Your task to perform on an android device: turn on the 24-hour format for clock Image 0: 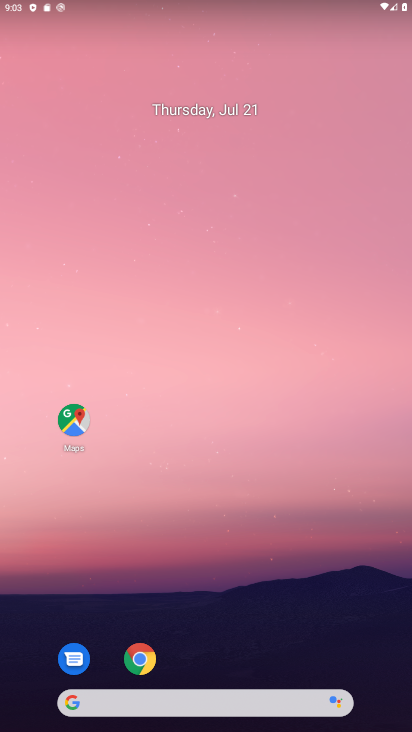
Step 0: drag from (232, 693) to (265, 147)
Your task to perform on an android device: turn on the 24-hour format for clock Image 1: 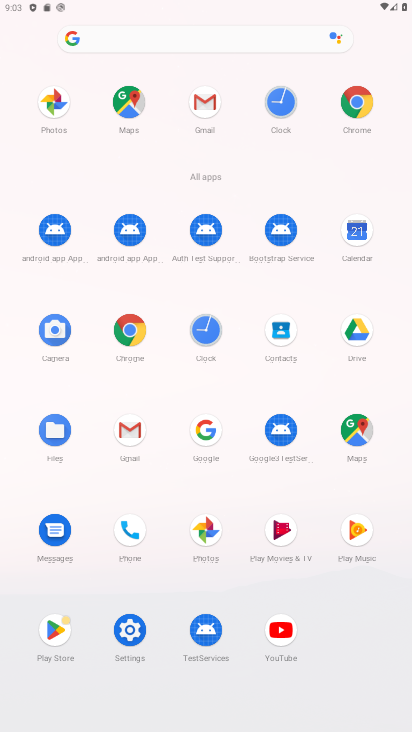
Step 1: click (200, 333)
Your task to perform on an android device: turn on the 24-hour format for clock Image 2: 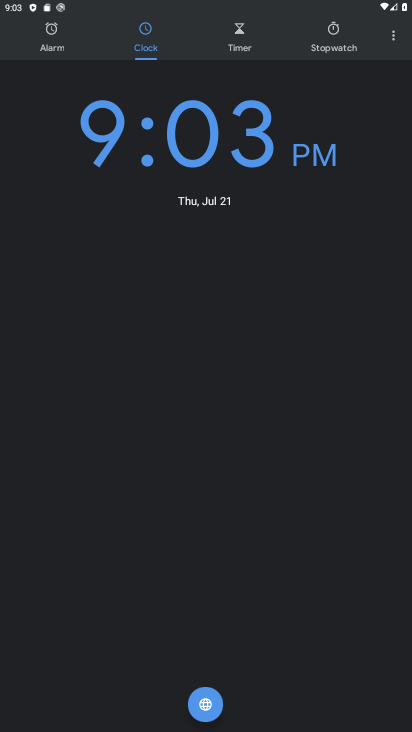
Step 2: click (392, 41)
Your task to perform on an android device: turn on the 24-hour format for clock Image 3: 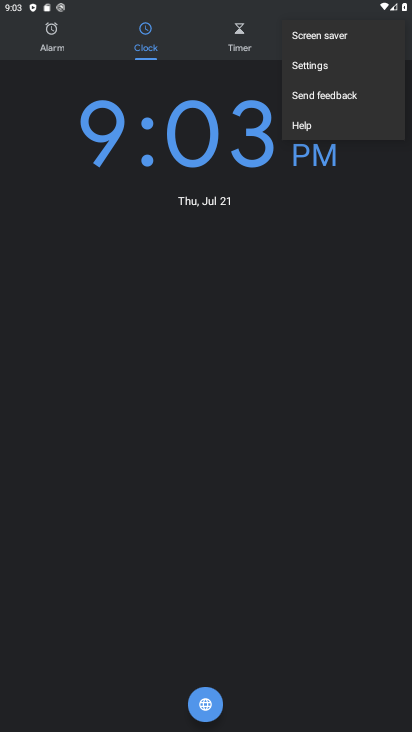
Step 3: click (308, 69)
Your task to perform on an android device: turn on the 24-hour format for clock Image 4: 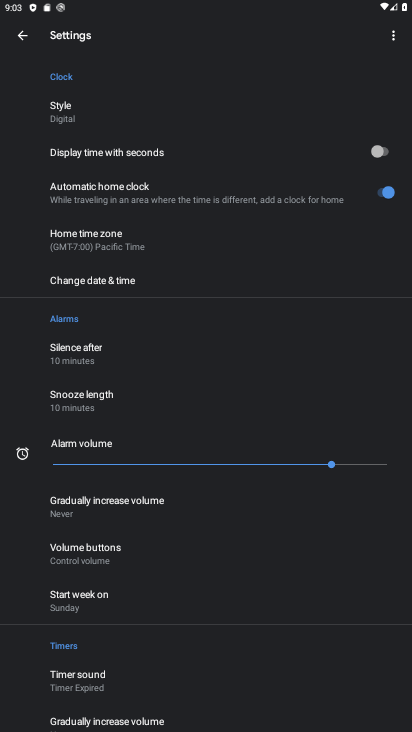
Step 4: click (116, 287)
Your task to perform on an android device: turn on the 24-hour format for clock Image 5: 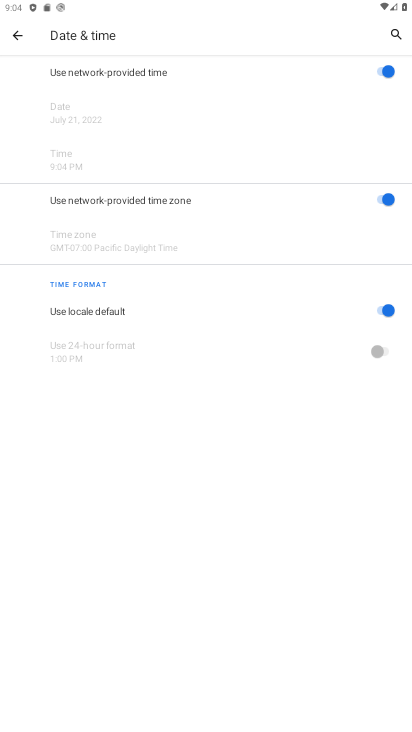
Step 5: click (379, 313)
Your task to perform on an android device: turn on the 24-hour format for clock Image 6: 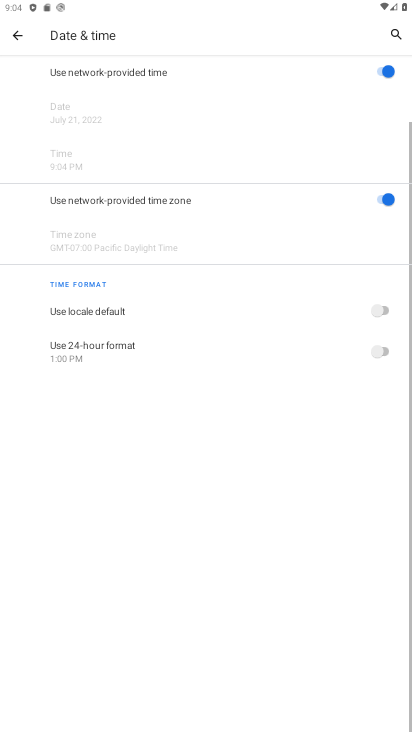
Step 6: click (380, 351)
Your task to perform on an android device: turn on the 24-hour format for clock Image 7: 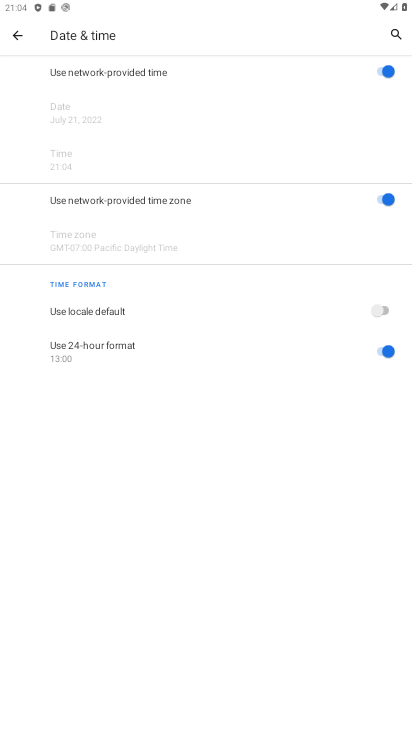
Step 7: task complete